Your task to perform on an android device: refresh tabs in the chrome app Image 0: 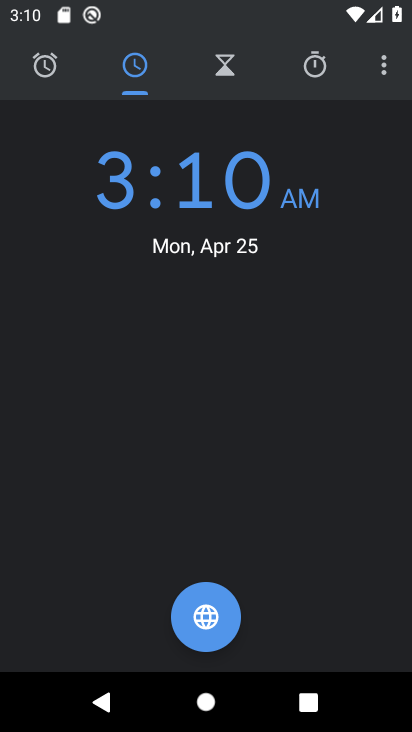
Step 0: press home button
Your task to perform on an android device: refresh tabs in the chrome app Image 1: 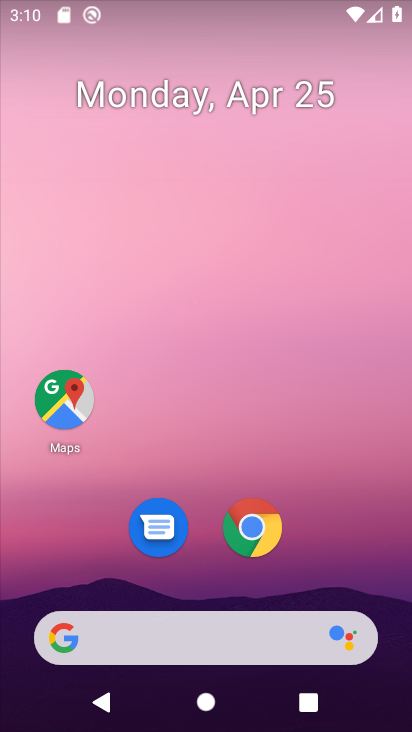
Step 1: click (251, 526)
Your task to perform on an android device: refresh tabs in the chrome app Image 2: 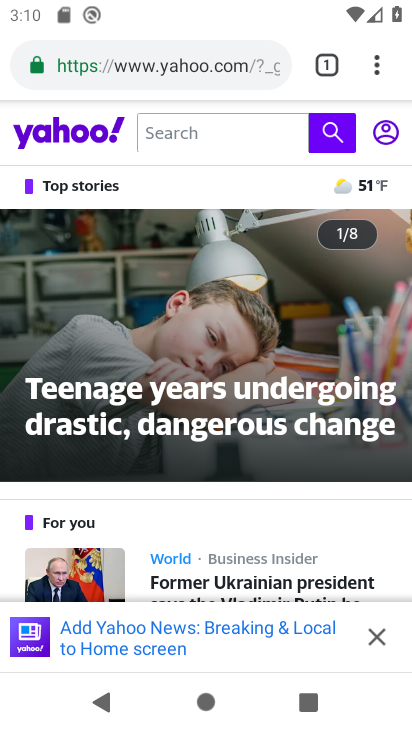
Step 2: click (373, 72)
Your task to perform on an android device: refresh tabs in the chrome app Image 3: 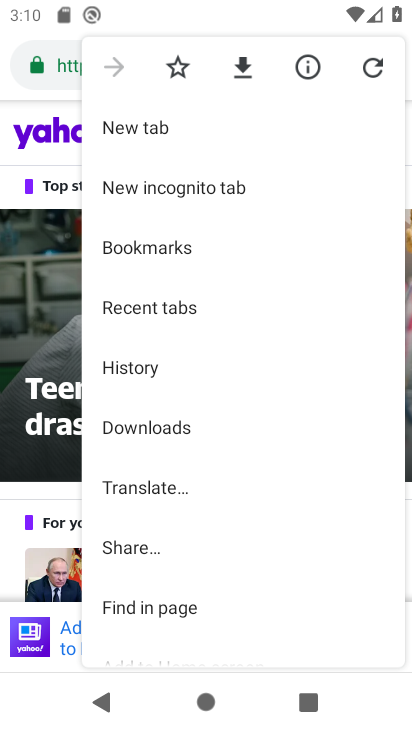
Step 3: click (373, 63)
Your task to perform on an android device: refresh tabs in the chrome app Image 4: 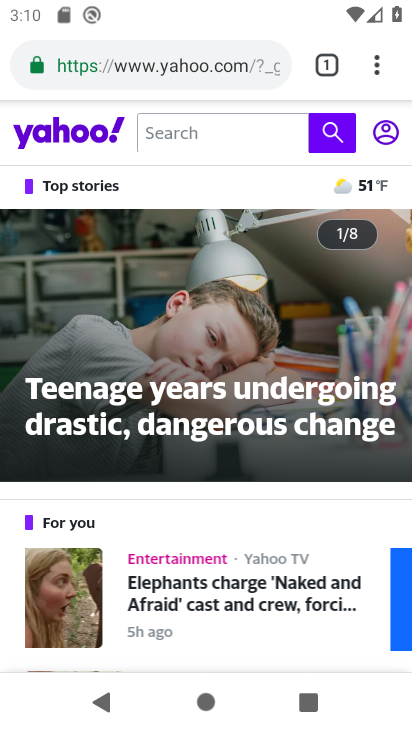
Step 4: task complete